Your task to perform on an android device: How much does the HisenseTV cost? Image 0: 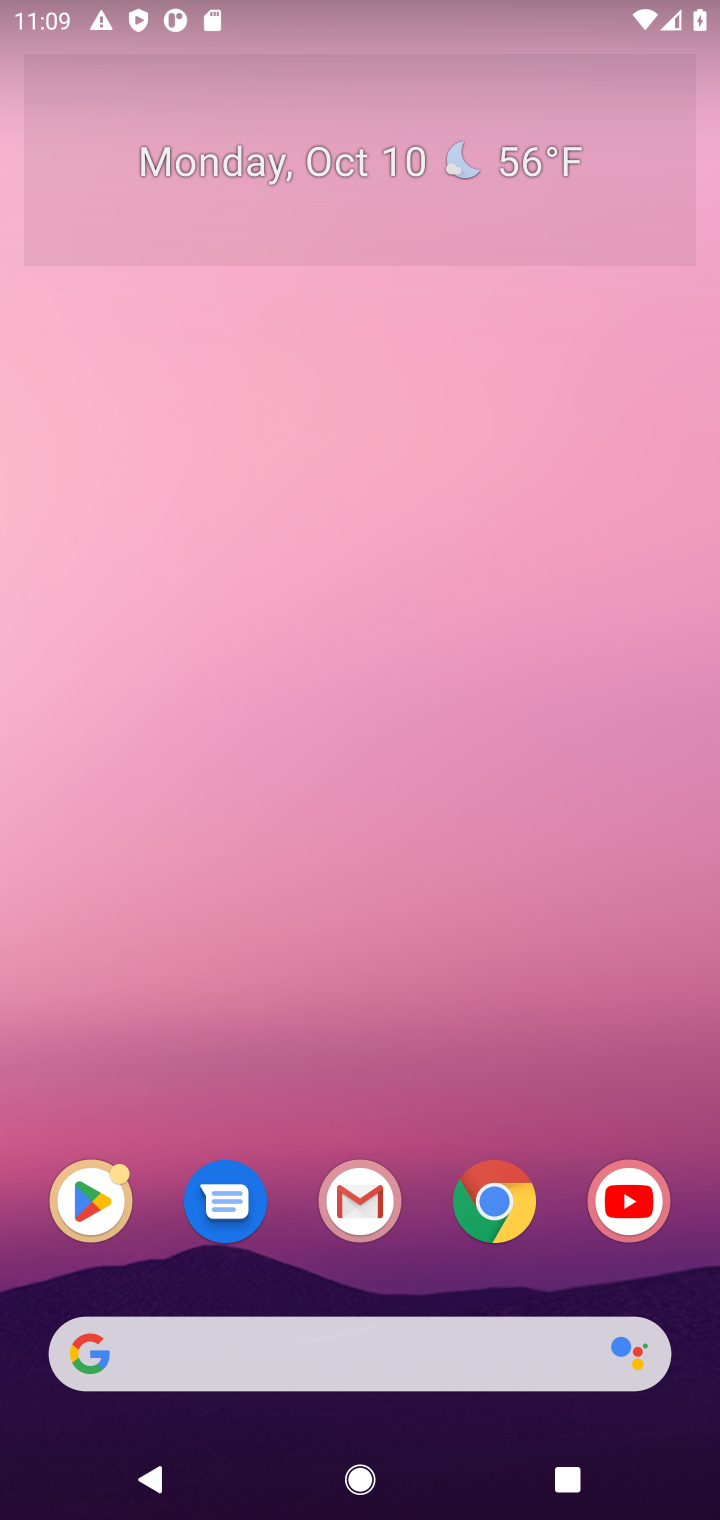
Step 0: task complete